Your task to perform on an android device: Search for sushi restaurants on Maps Image 0: 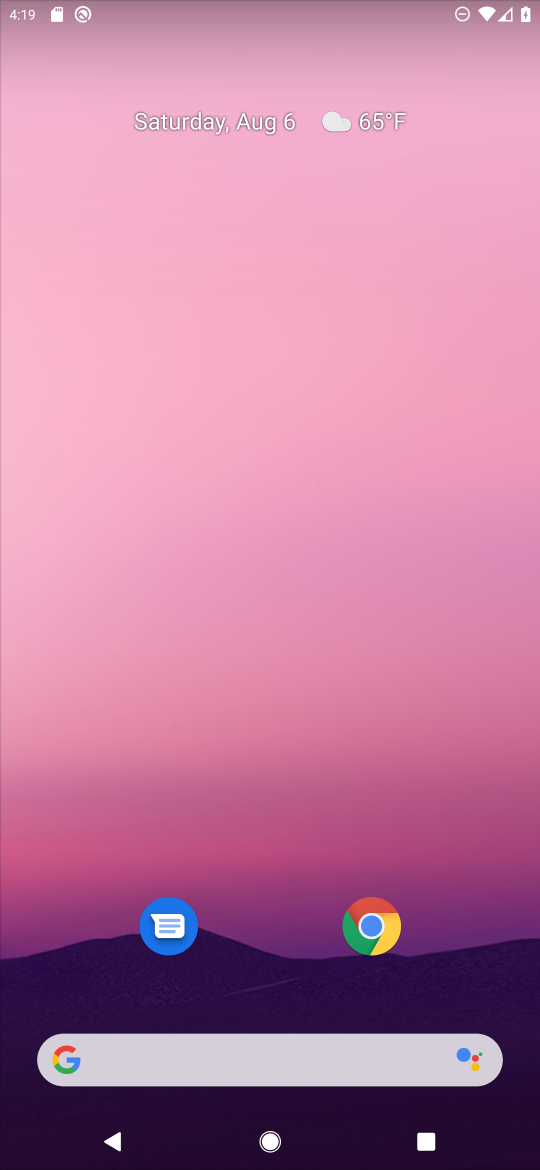
Step 0: drag from (274, 942) to (281, 328)
Your task to perform on an android device: Search for sushi restaurants on Maps Image 1: 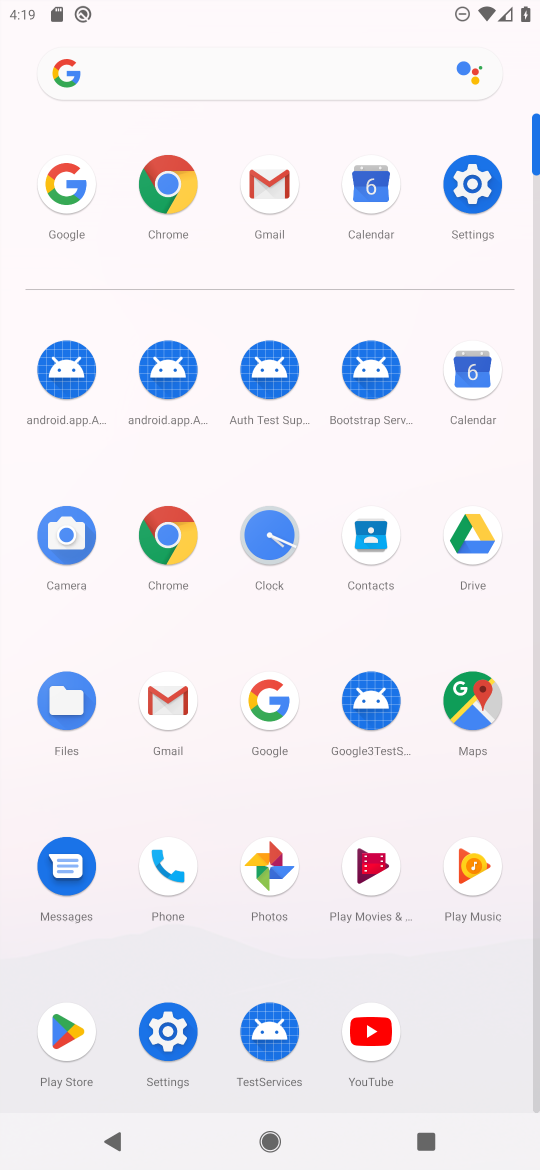
Step 1: click (462, 727)
Your task to perform on an android device: Search for sushi restaurants on Maps Image 2: 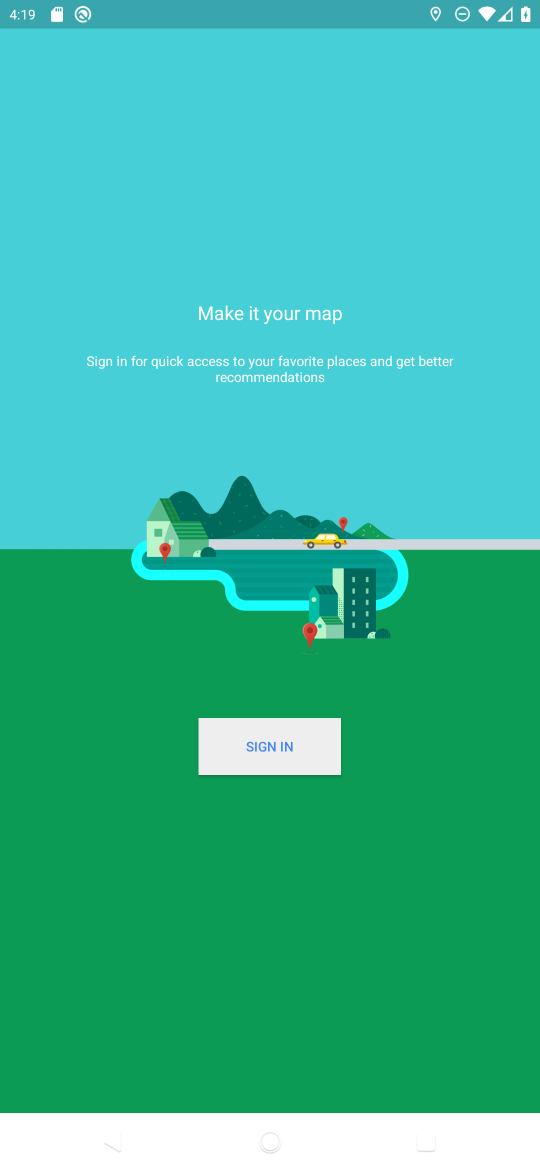
Step 2: task complete